Your task to perform on an android device: see tabs open on other devices in the chrome app Image 0: 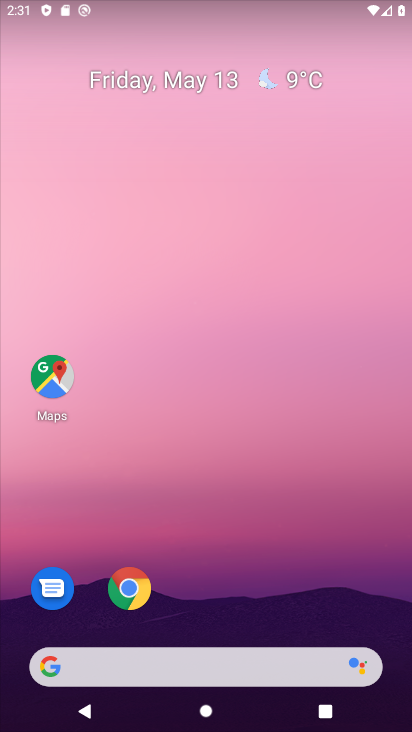
Step 0: click (136, 606)
Your task to perform on an android device: see tabs open on other devices in the chrome app Image 1: 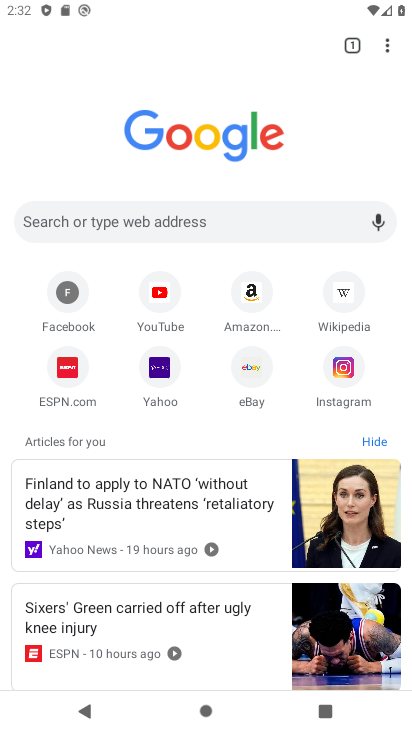
Step 1: task complete